Your task to perform on an android device: Open the calendar app, open the side menu, and click the "Day" option Image 0: 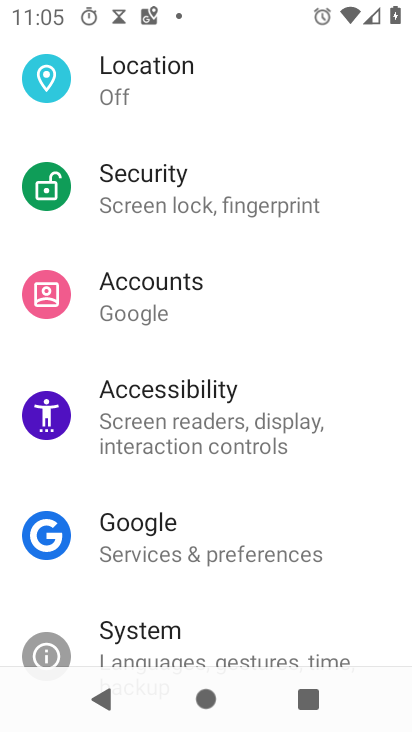
Step 0: press home button
Your task to perform on an android device: Open the calendar app, open the side menu, and click the "Day" option Image 1: 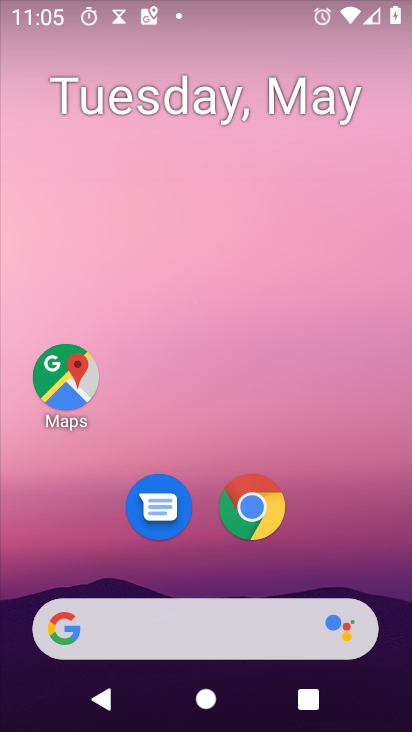
Step 1: drag from (42, 613) to (295, 244)
Your task to perform on an android device: Open the calendar app, open the side menu, and click the "Day" option Image 2: 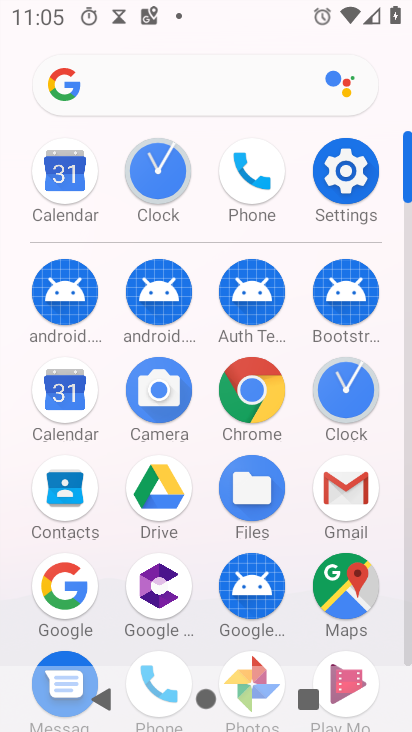
Step 2: click (75, 404)
Your task to perform on an android device: Open the calendar app, open the side menu, and click the "Day" option Image 3: 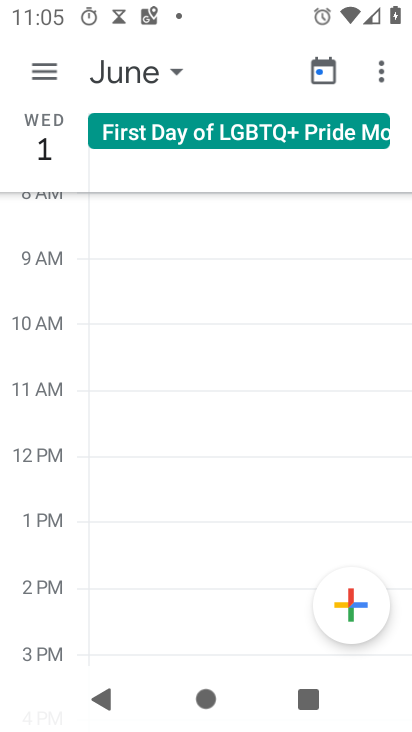
Step 3: click (43, 65)
Your task to perform on an android device: Open the calendar app, open the side menu, and click the "Day" option Image 4: 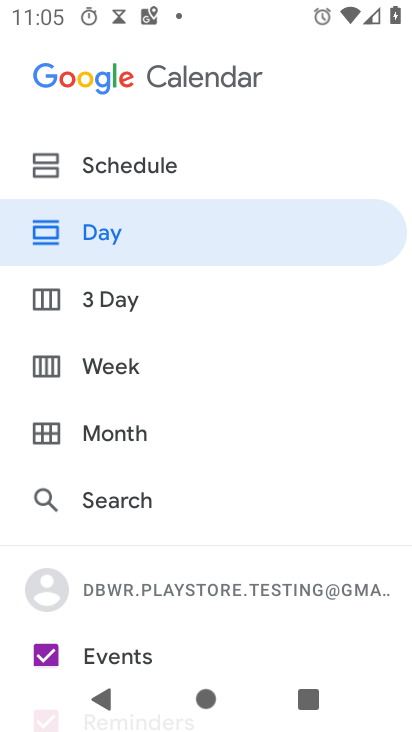
Step 4: click (178, 246)
Your task to perform on an android device: Open the calendar app, open the side menu, and click the "Day" option Image 5: 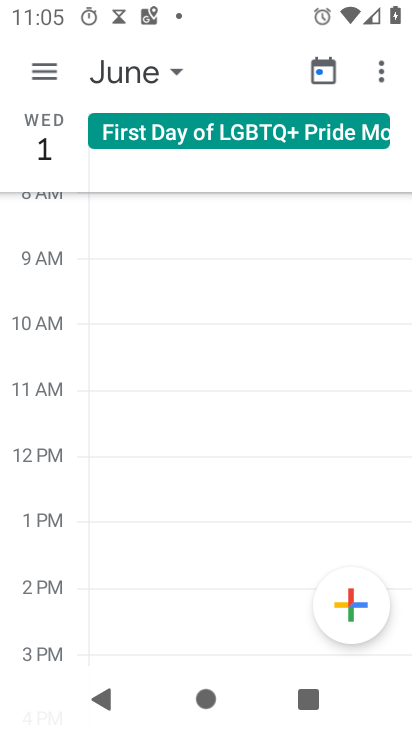
Step 5: task complete